Your task to perform on an android device: check storage Image 0: 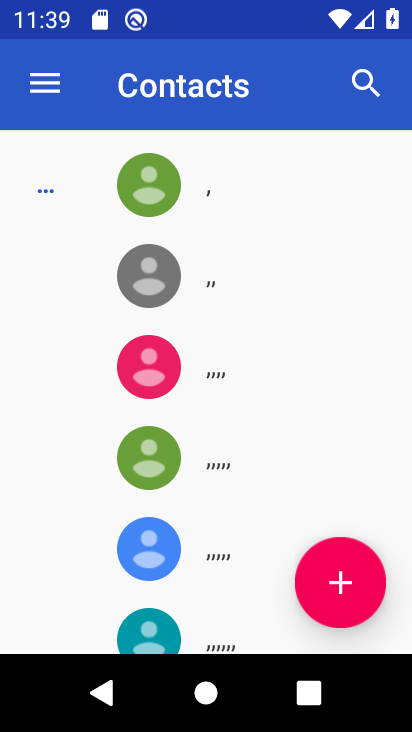
Step 0: press home button
Your task to perform on an android device: check storage Image 1: 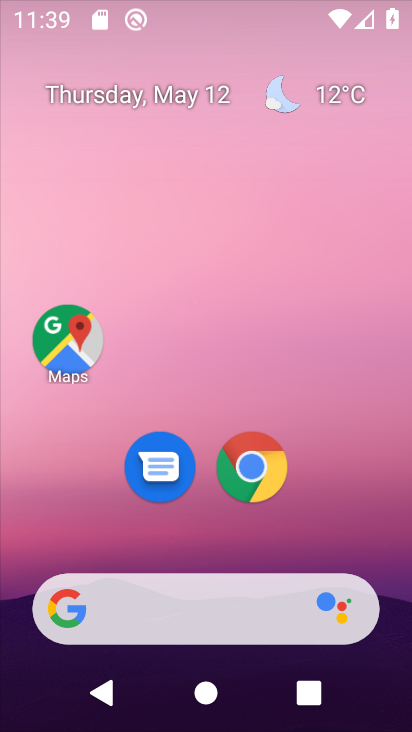
Step 1: drag from (329, 524) to (251, 86)
Your task to perform on an android device: check storage Image 2: 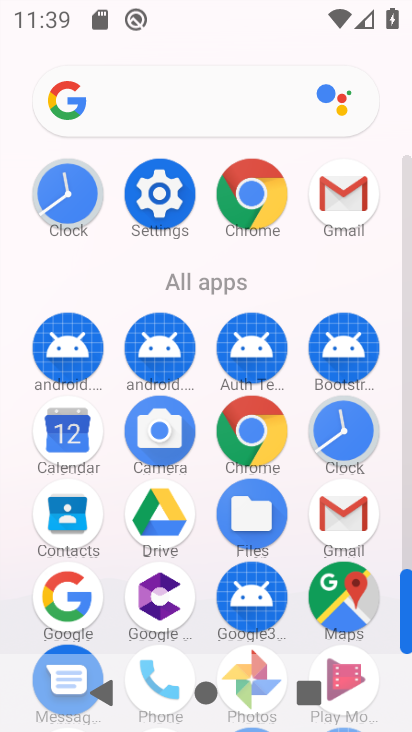
Step 2: click (153, 211)
Your task to perform on an android device: check storage Image 3: 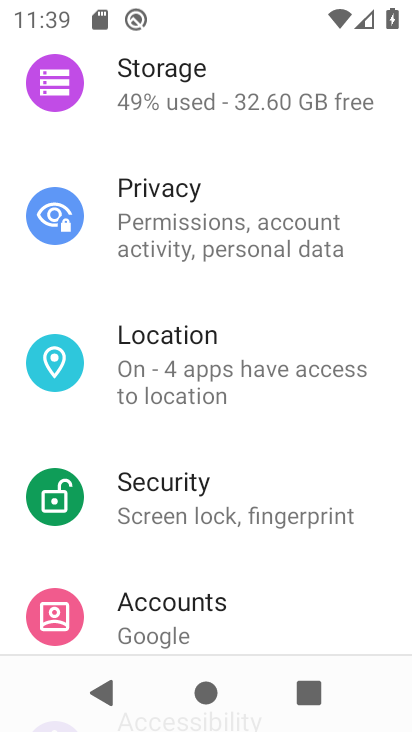
Step 3: click (221, 108)
Your task to perform on an android device: check storage Image 4: 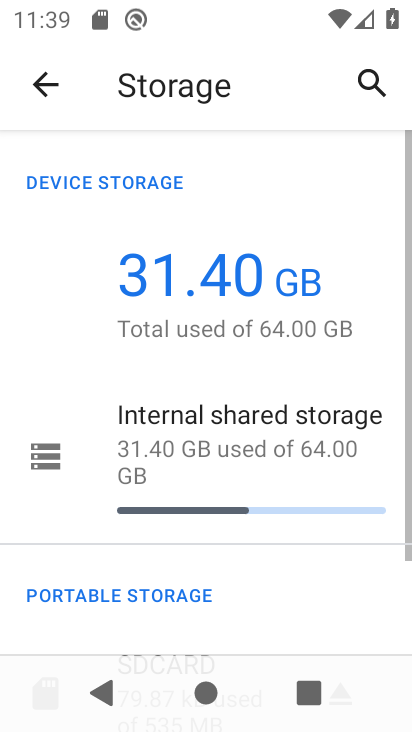
Step 4: task complete